Your task to perform on an android device: Go to ESPN.com Image 0: 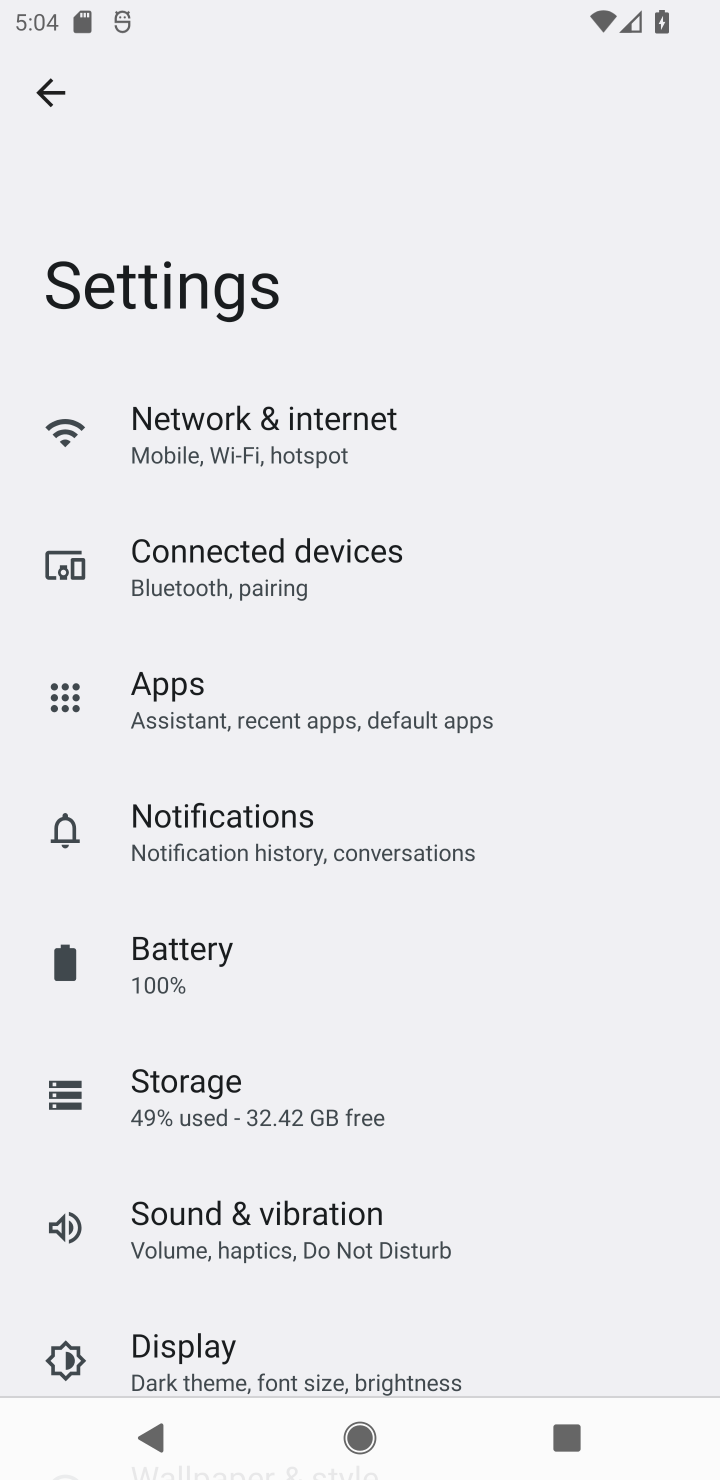
Step 0: press home button
Your task to perform on an android device: Go to ESPN.com Image 1: 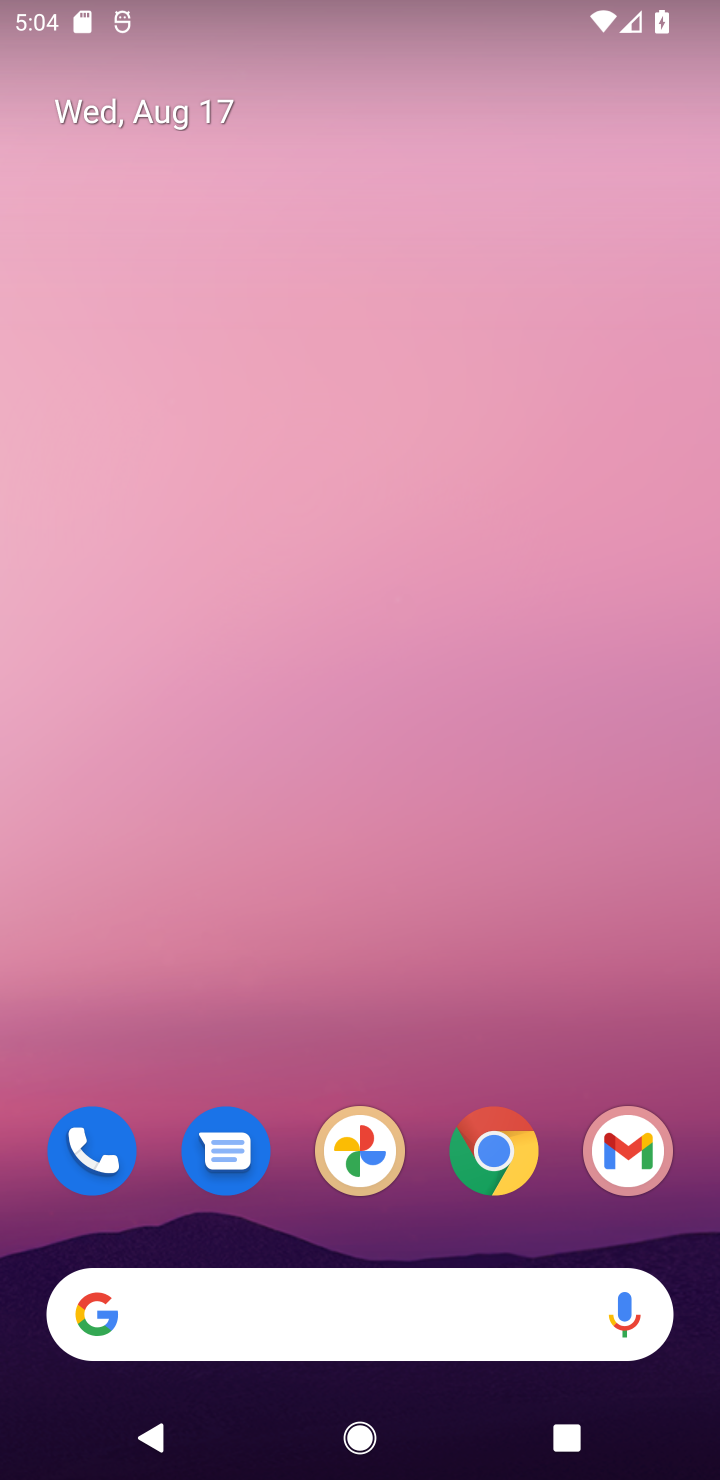
Step 1: click (493, 1164)
Your task to perform on an android device: Go to ESPN.com Image 2: 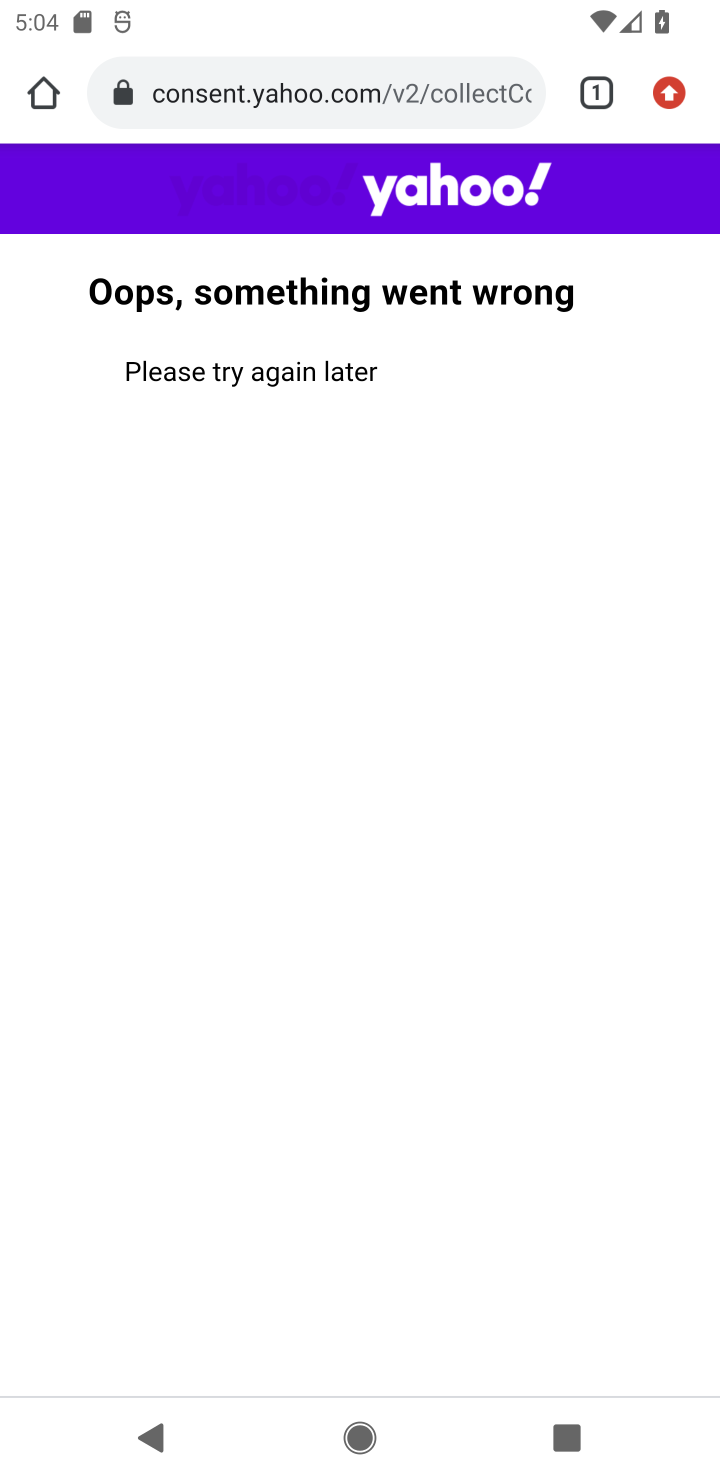
Step 2: click (398, 103)
Your task to perform on an android device: Go to ESPN.com Image 3: 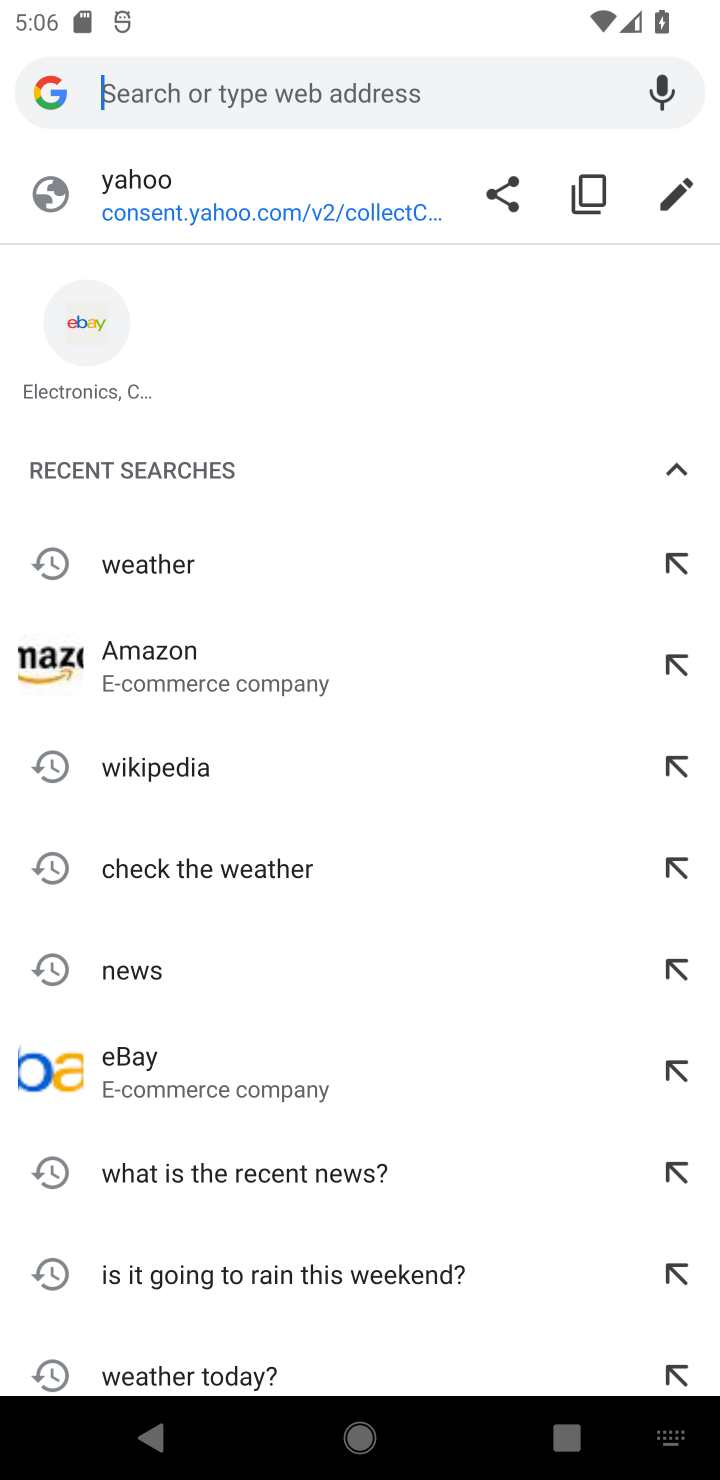
Step 3: click (240, 1079)
Your task to perform on an android device: Go to ESPN.com Image 4: 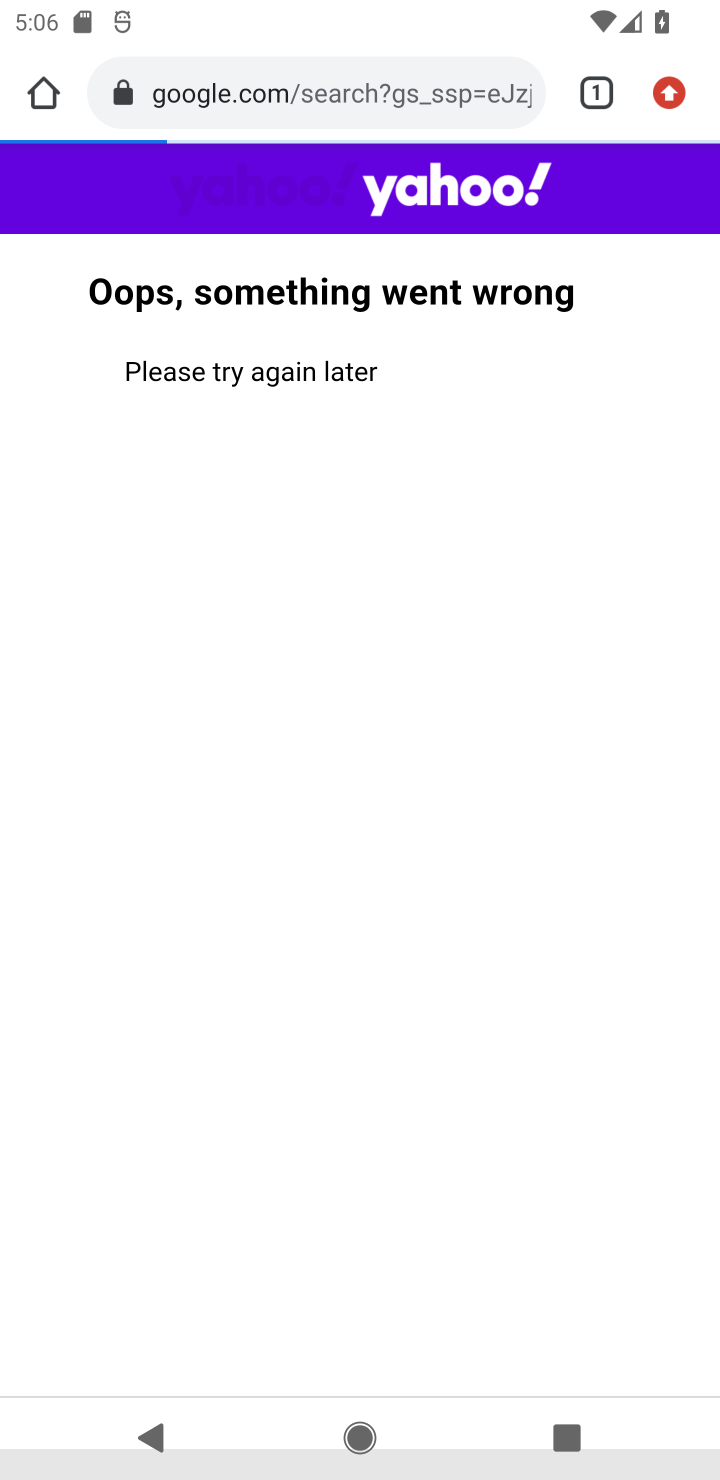
Step 4: task complete